Your task to perform on an android device: Go to settings Image 0: 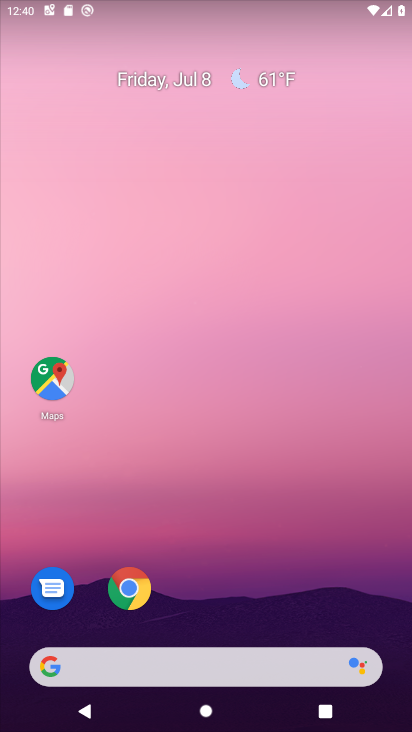
Step 0: press home button
Your task to perform on an android device: Go to settings Image 1: 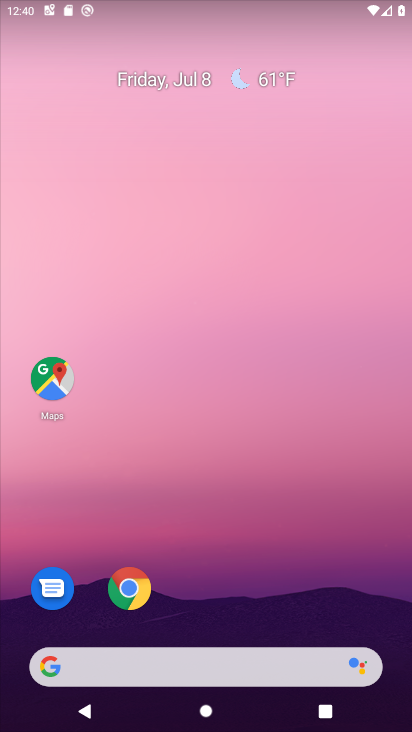
Step 1: drag from (281, 576) to (283, 25)
Your task to perform on an android device: Go to settings Image 2: 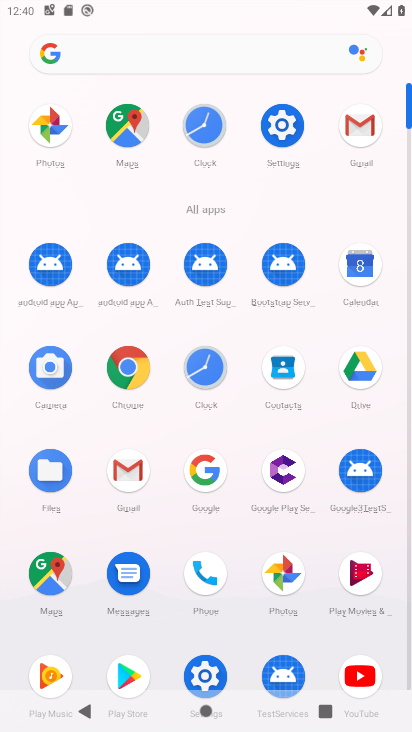
Step 2: click (287, 121)
Your task to perform on an android device: Go to settings Image 3: 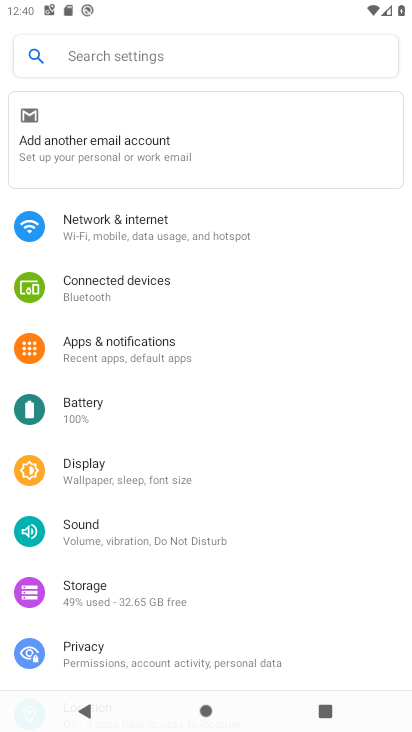
Step 3: task complete